Your task to perform on an android device: allow cookies in the chrome app Image 0: 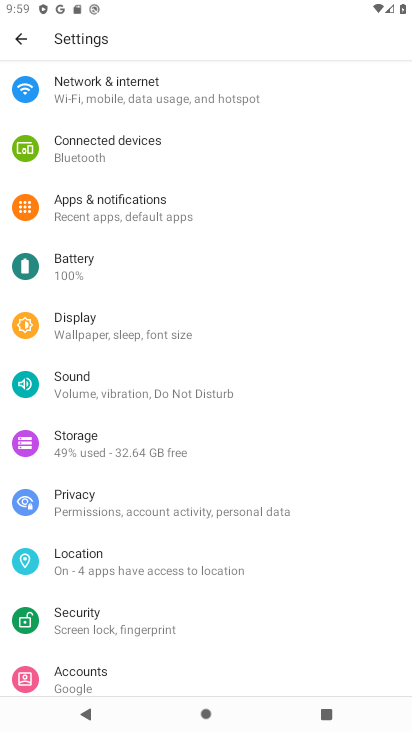
Step 0: press home button
Your task to perform on an android device: allow cookies in the chrome app Image 1: 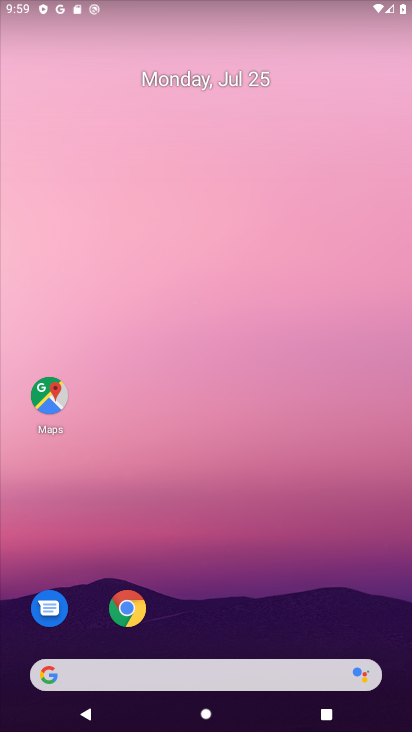
Step 1: drag from (218, 610) to (262, 103)
Your task to perform on an android device: allow cookies in the chrome app Image 2: 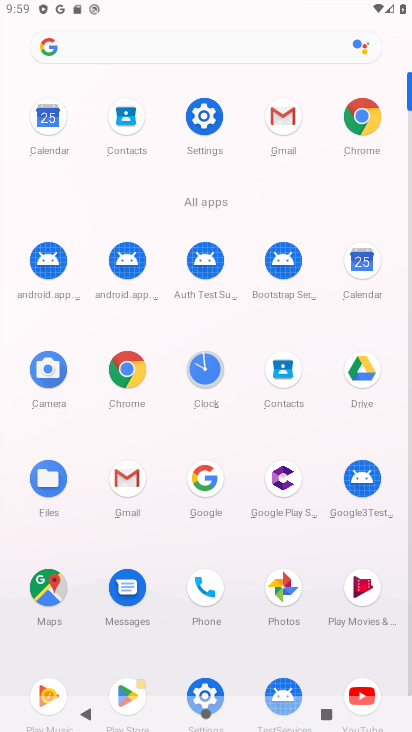
Step 2: click (359, 139)
Your task to perform on an android device: allow cookies in the chrome app Image 3: 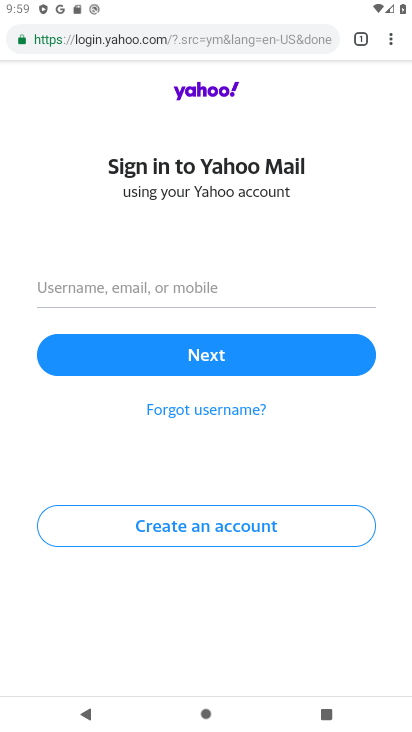
Step 3: click (398, 47)
Your task to perform on an android device: allow cookies in the chrome app Image 4: 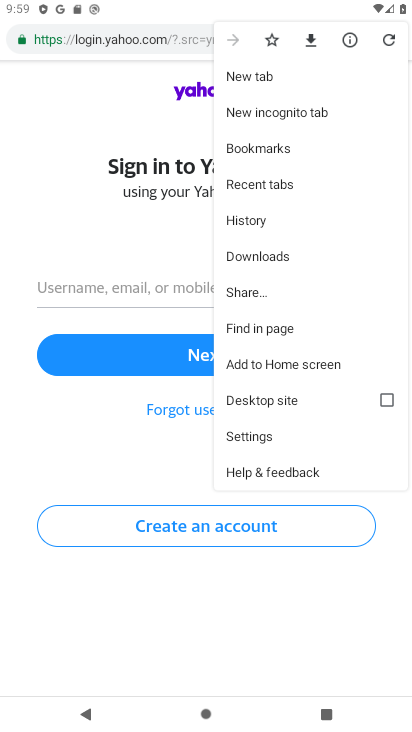
Step 4: click (263, 437)
Your task to perform on an android device: allow cookies in the chrome app Image 5: 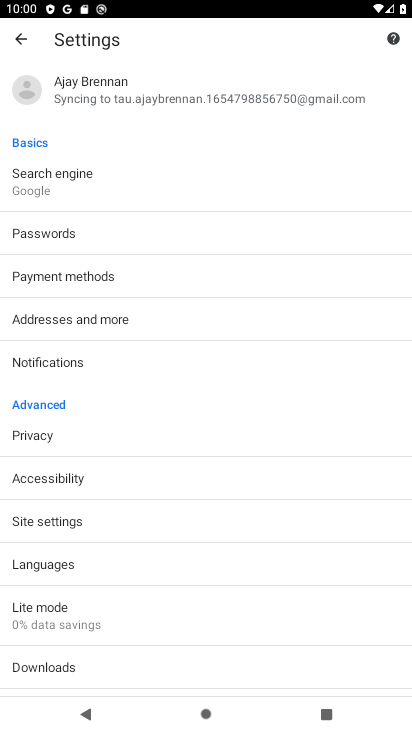
Step 5: click (58, 520)
Your task to perform on an android device: allow cookies in the chrome app Image 6: 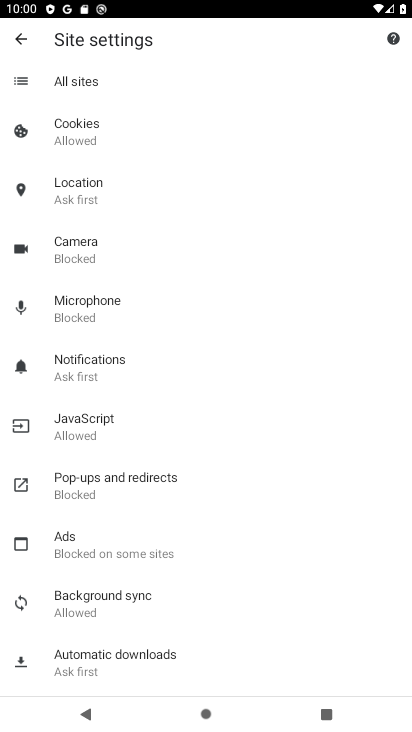
Step 6: click (97, 142)
Your task to perform on an android device: allow cookies in the chrome app Image 7: 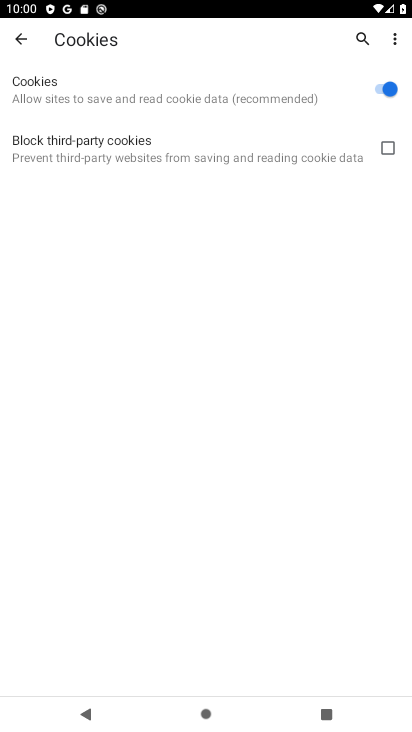
Step 7: task complete